Your task to perform on an android device: Go to sound settings Image 0: 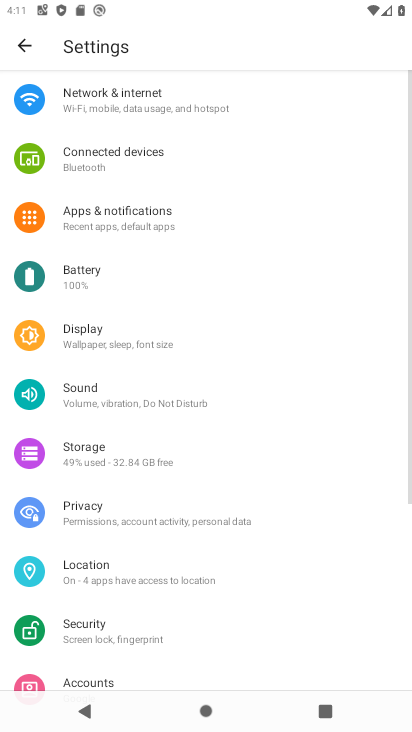
Step 0: click (70, 409)
Your task to perform on an android device: Go to sound settings Image 1: 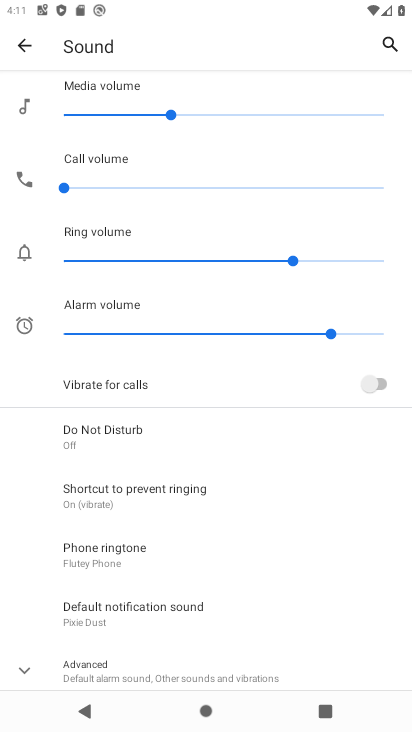
Step 1: task complete